Your task to perform on an android device: turn off translation in the chrome app Image 0: 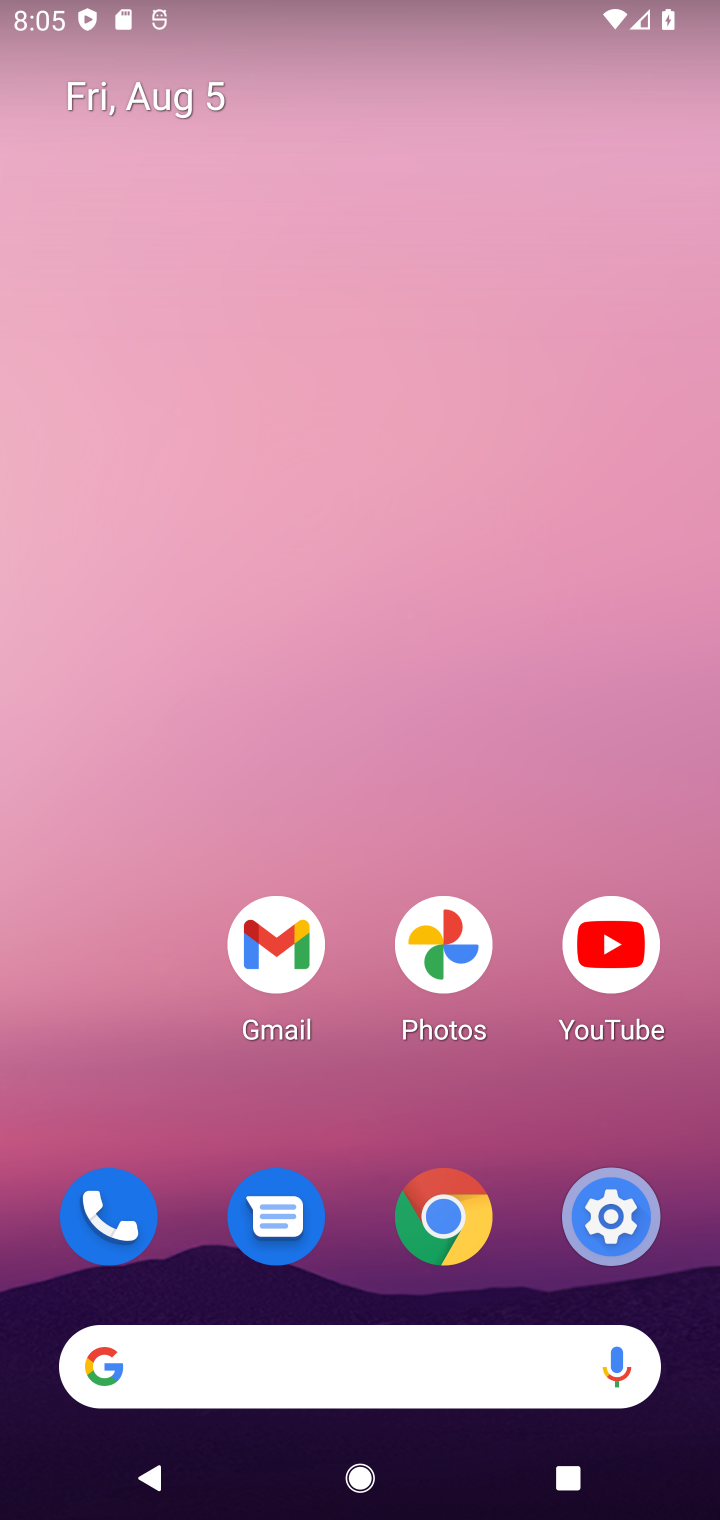
Step 0: drag from (342, 1307) to (515, 339)
Your task to perform on an android device: turn off translation in the chrome app Image 1: 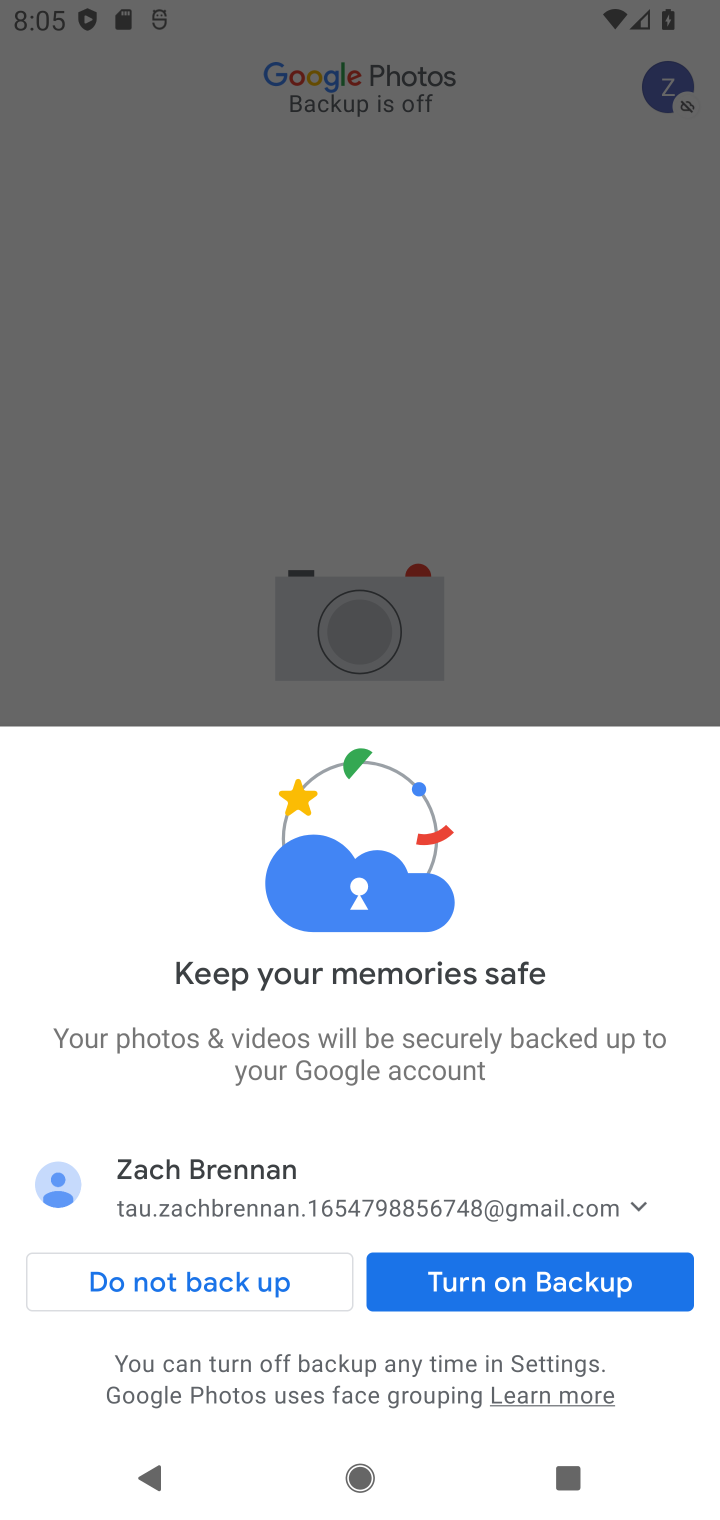
Step 1: press home button
Your task to perform on an android device: turn off translation in the chrome app Image 2: 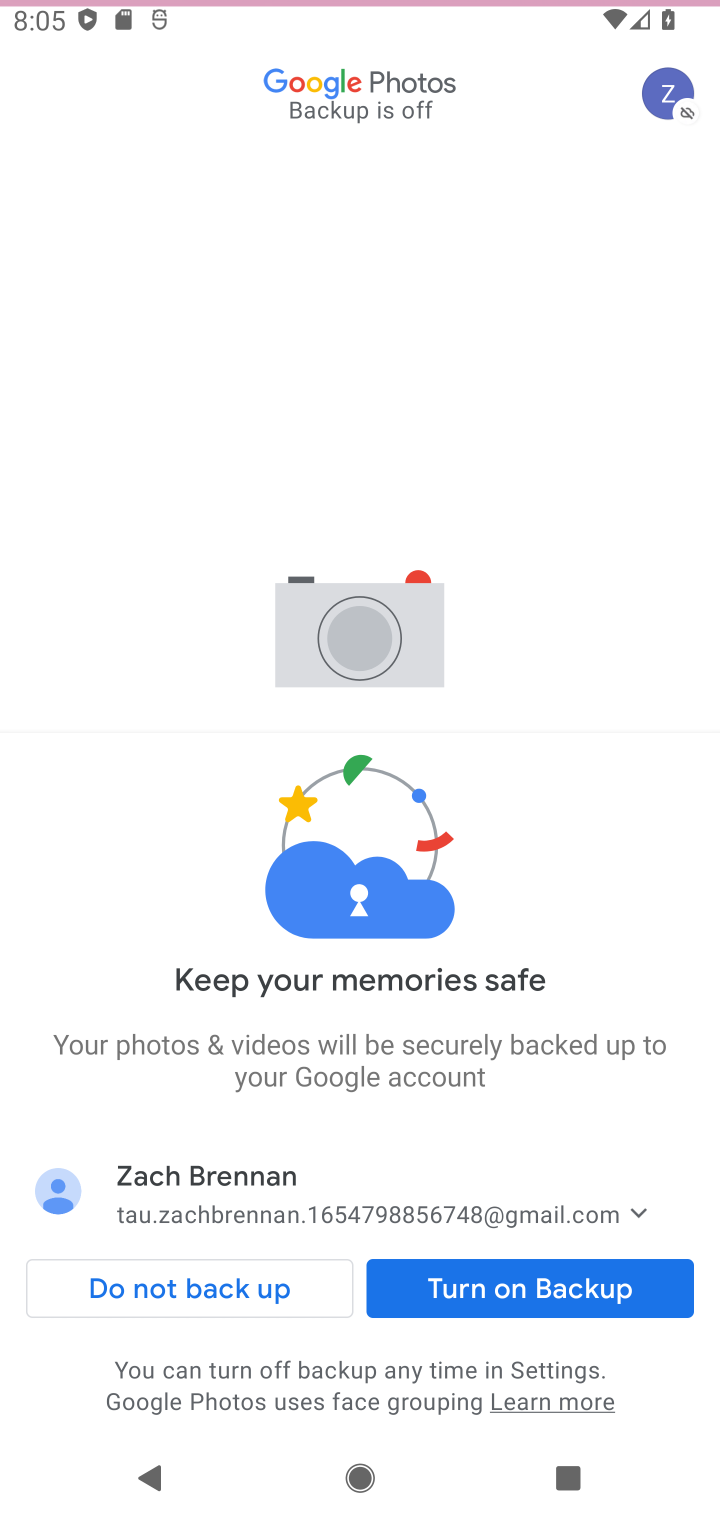
Step 2: drag from (357, 1149) to (430, 365)
Your task to perform on an android device: turn off translation in the chrome app Image 3: 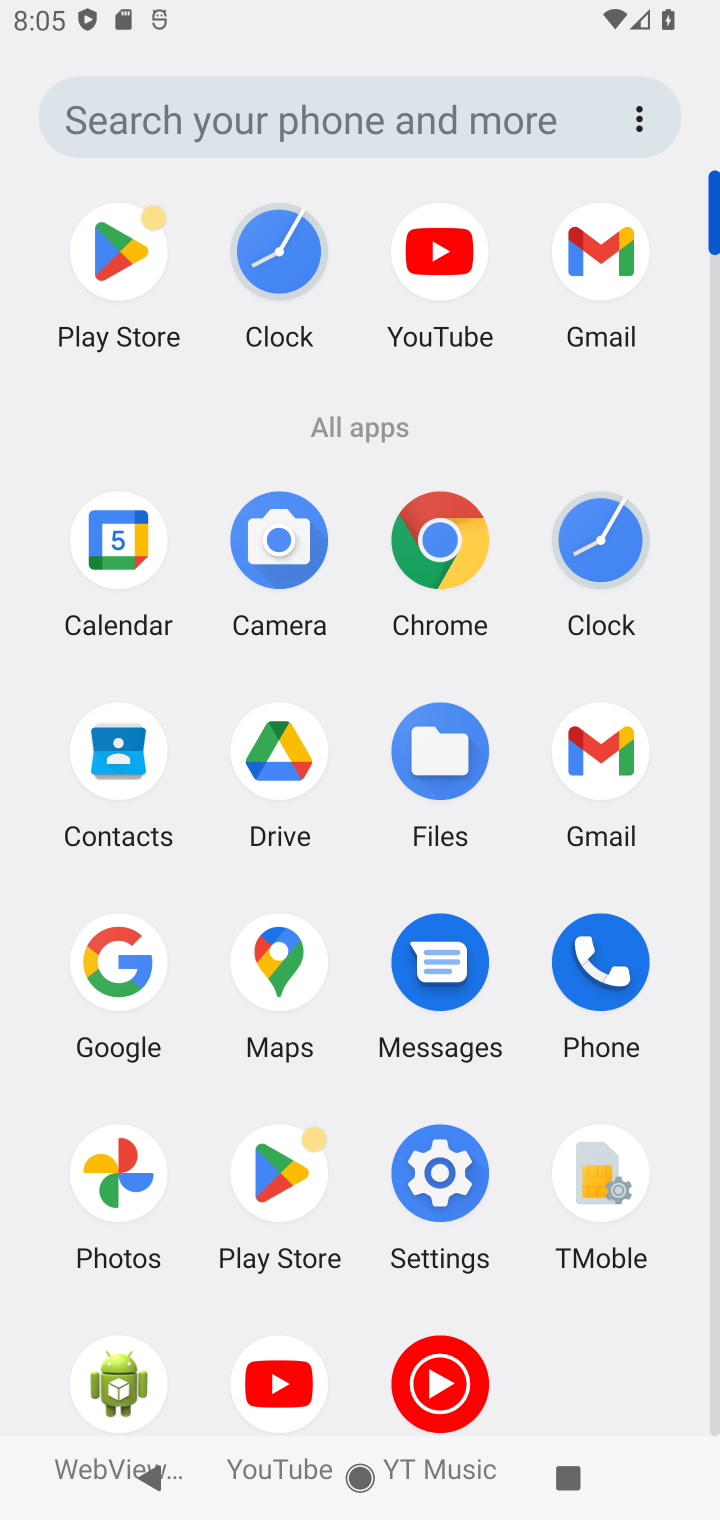
Step 3: click (433, 531)
Your task to perform on an android device: turn off translation in the chrome app Image 4: 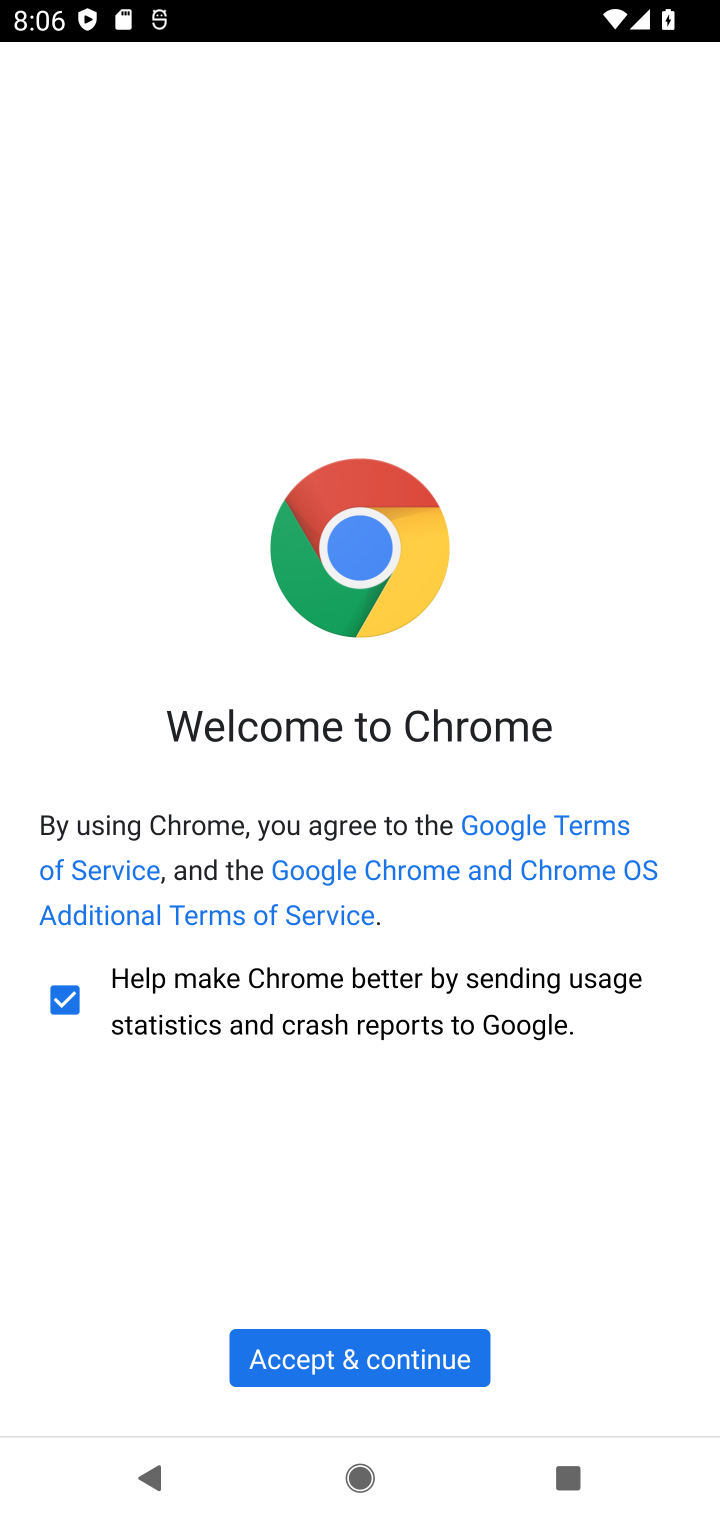
Step 4: click (338, 1353)
Your task to perform on an android device: turn off translation in the chrome app Image 5: 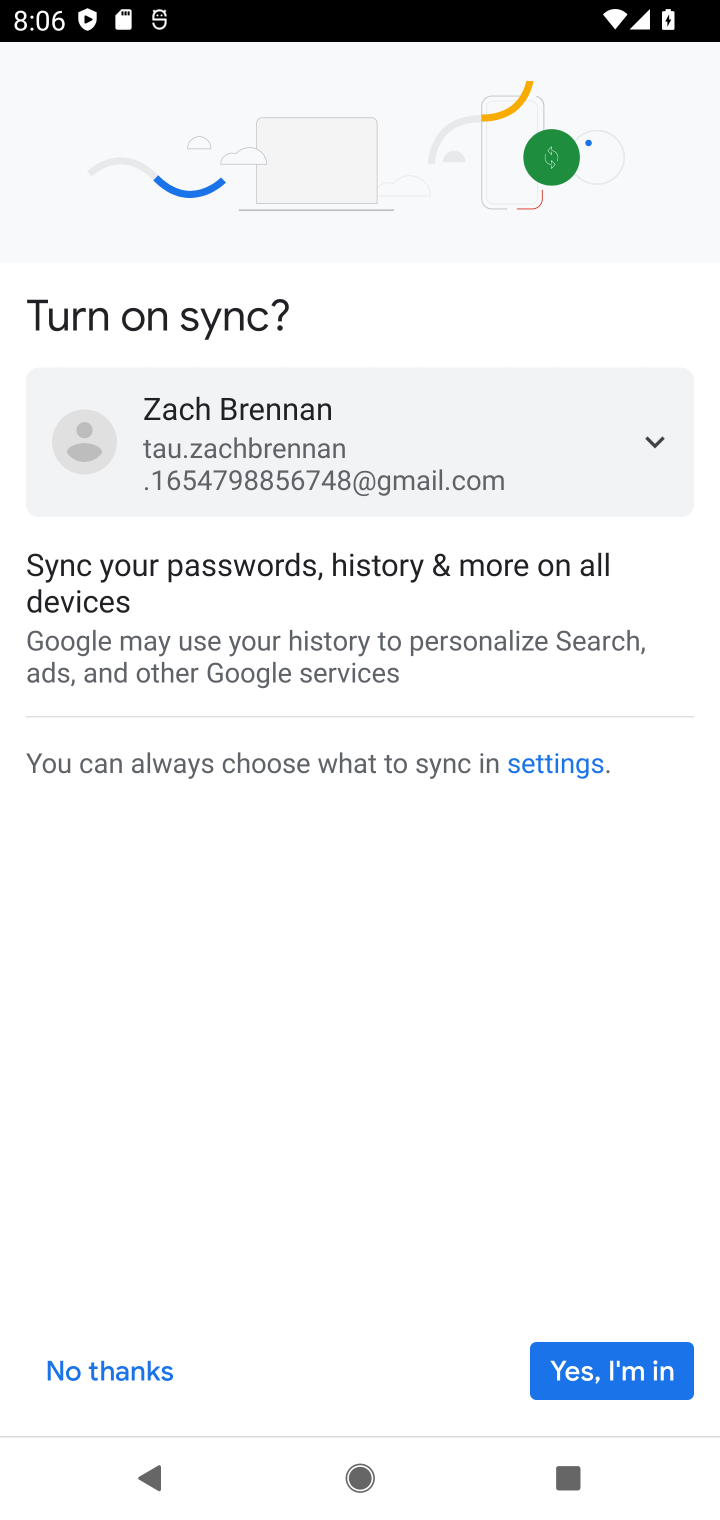
Step 5: click (592, 1366)
Your task to perform on an android device: turn off translation in the chrome app Image 6: 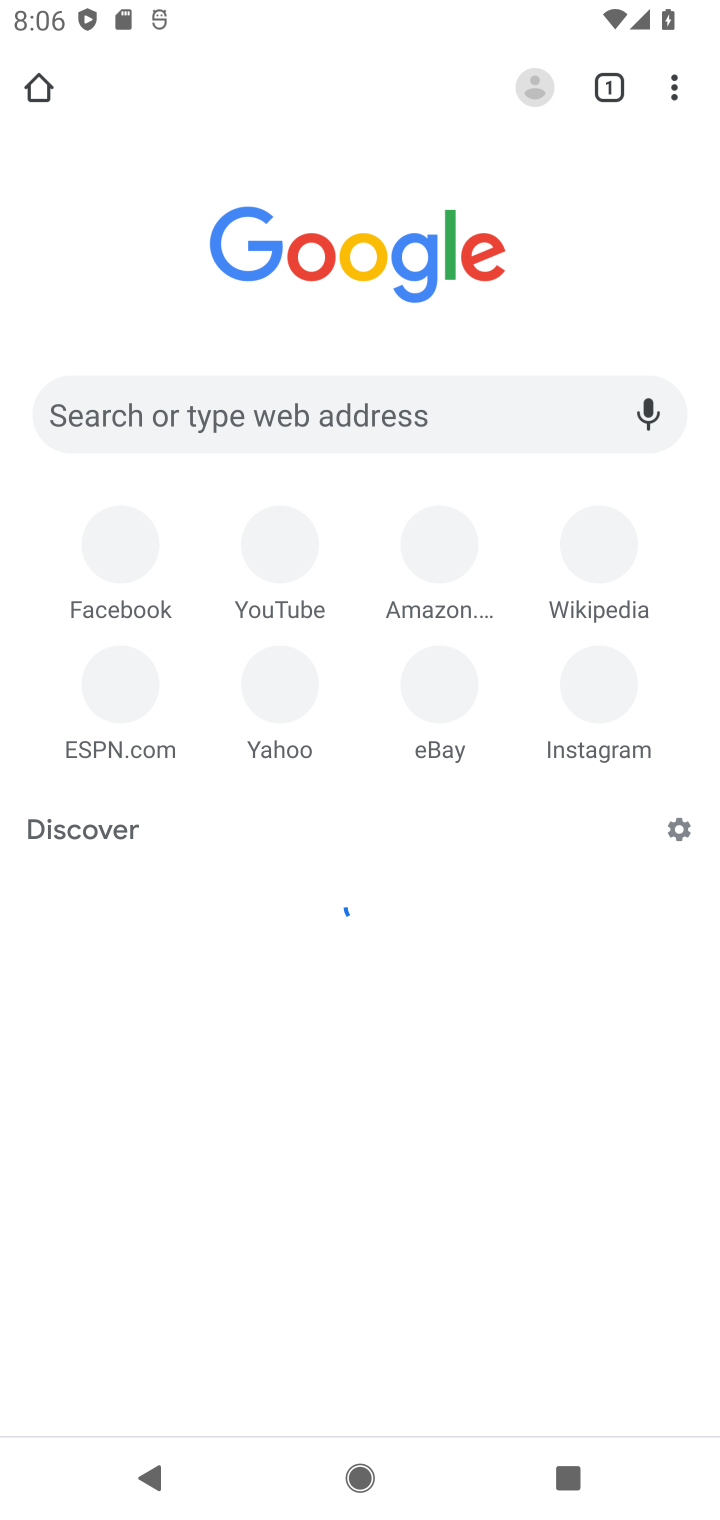
Step 6: click (606, 1371)
Your task to perform on an android device: turn off translation in the chrome app Image 7: 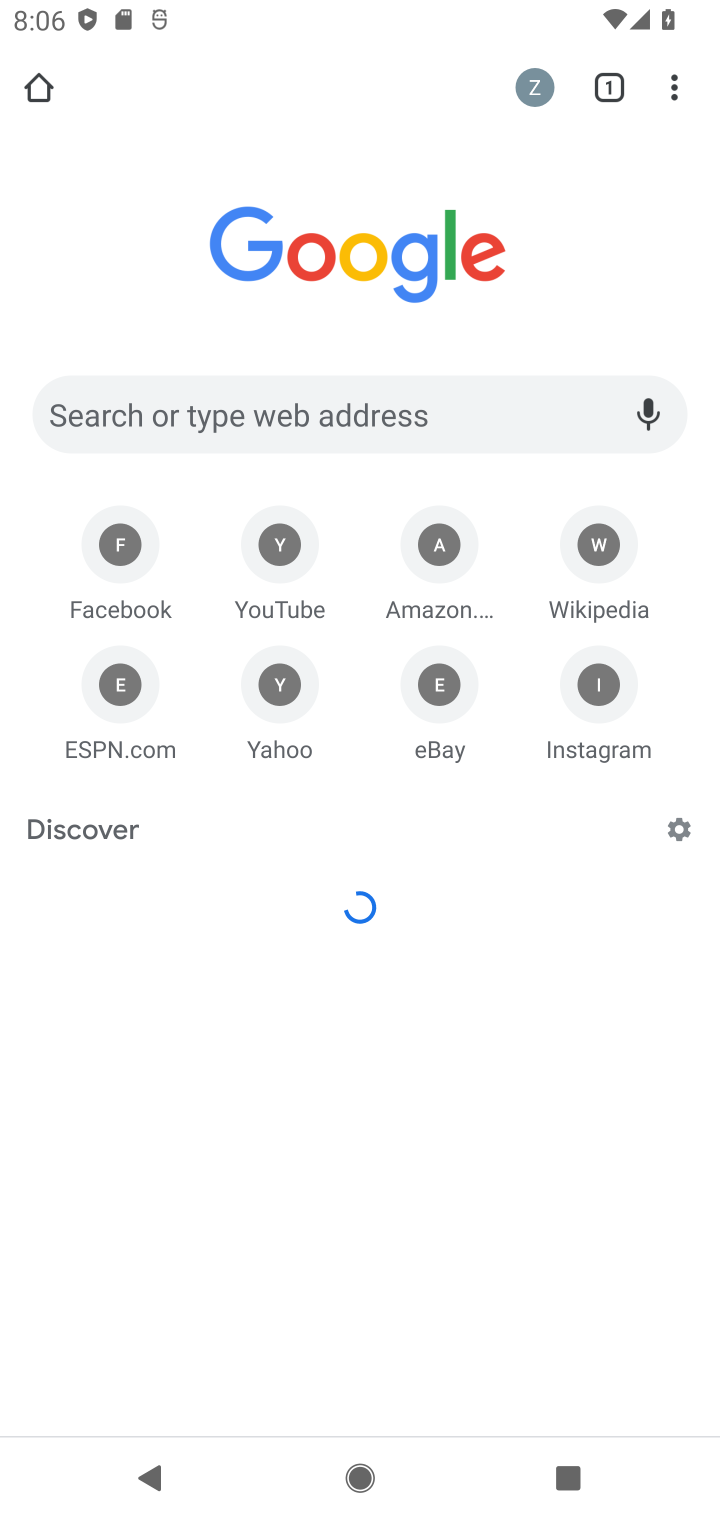
Step 7: click (679, 83)
Your task to perform on an android device: turn off translation in the chrome app Image 8: 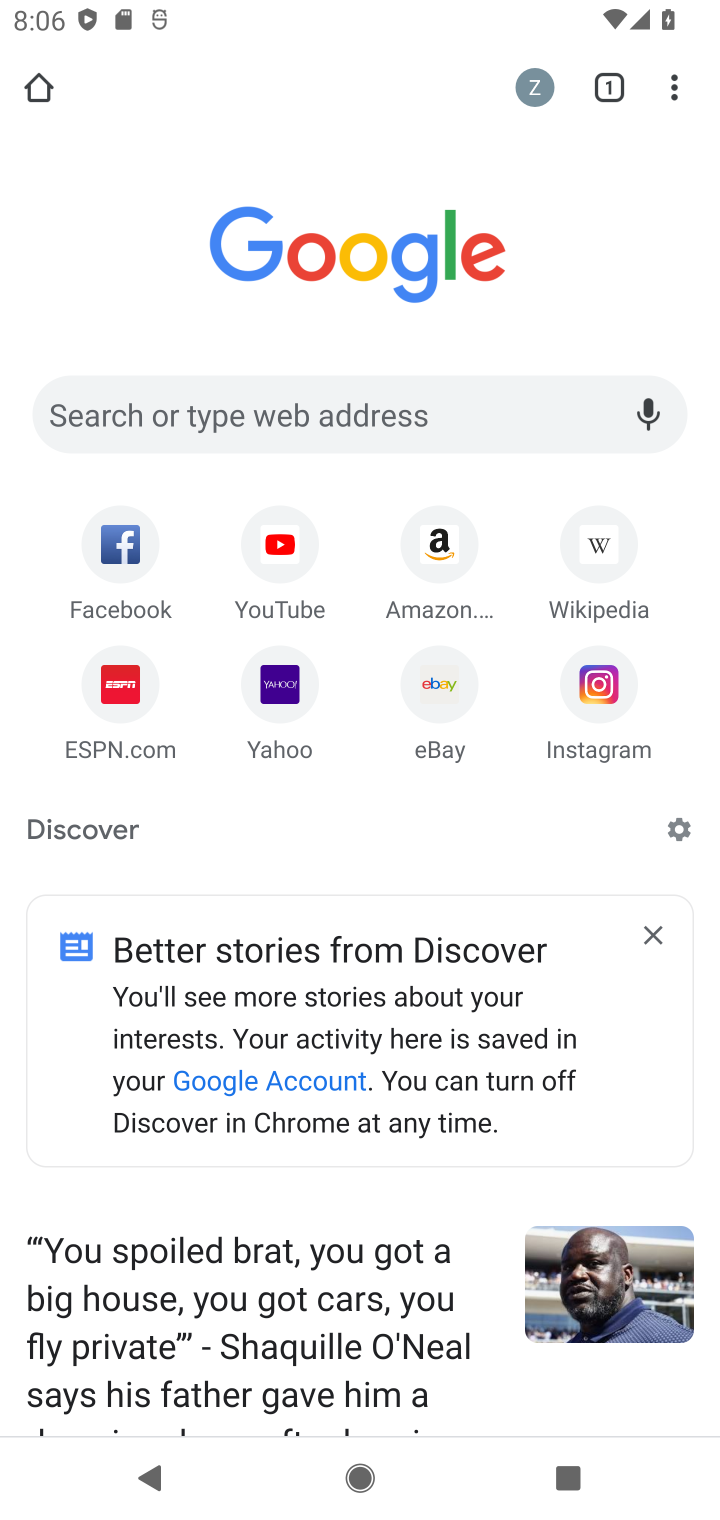
Step 8: drag from (675, 96) to (427, 767)
Your task to perform on an android device: turn off translation in the chrome app Image 9: 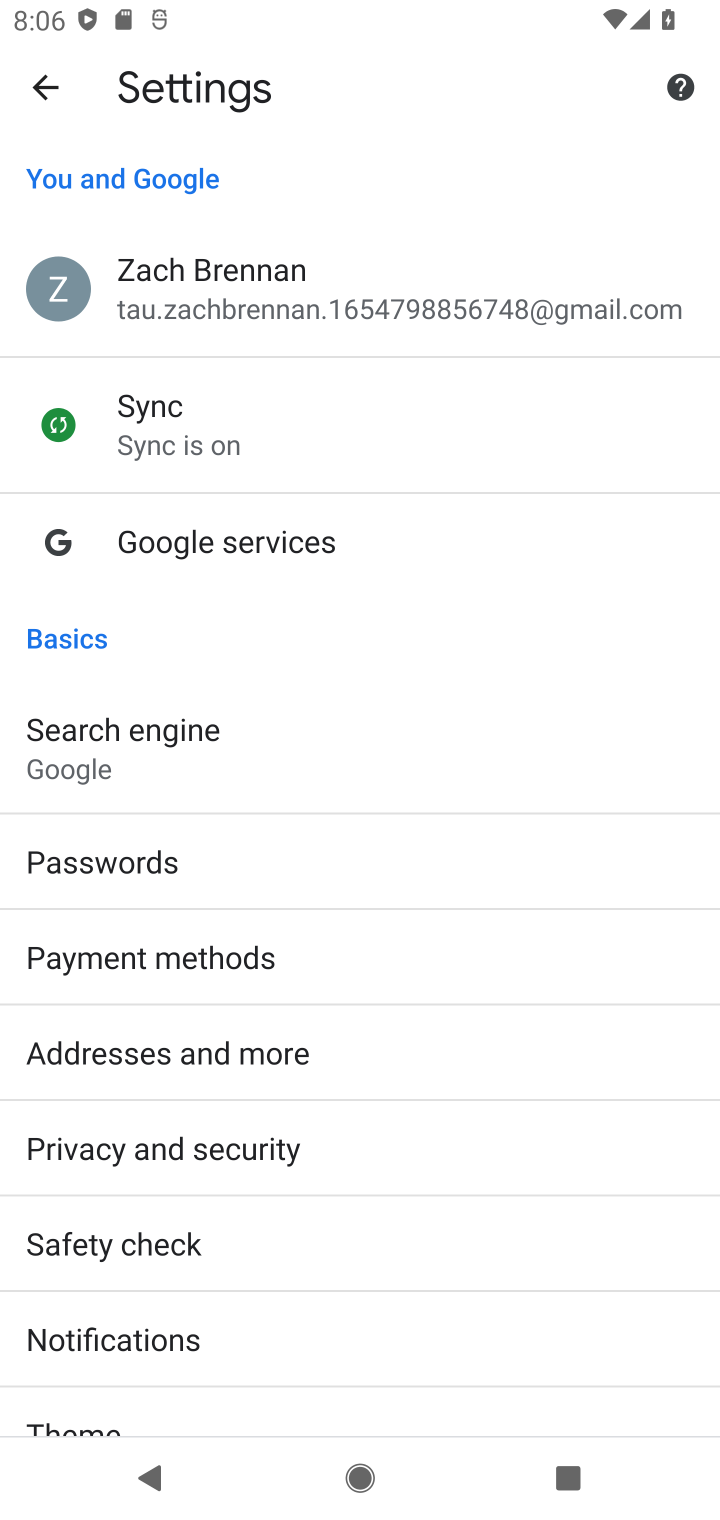
Step 9: drag from (175, 1295) to (322, 542)
Your task to perform on an android device: turn off translation in the chrome app Image 10: 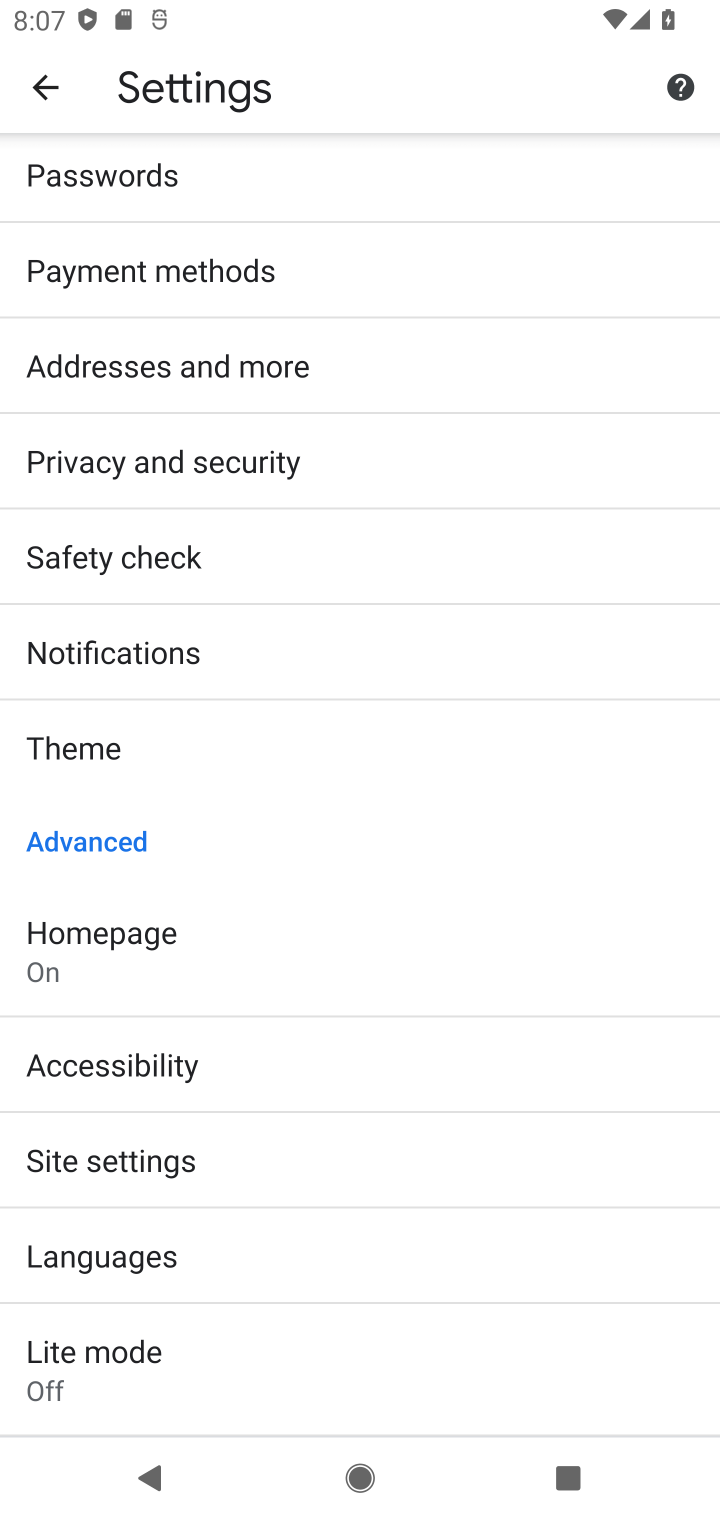
Step 10: drag from (285, 1262) to (467, 434)
Your task to perform on an android device: turn off translation in the chrome app Image 11: 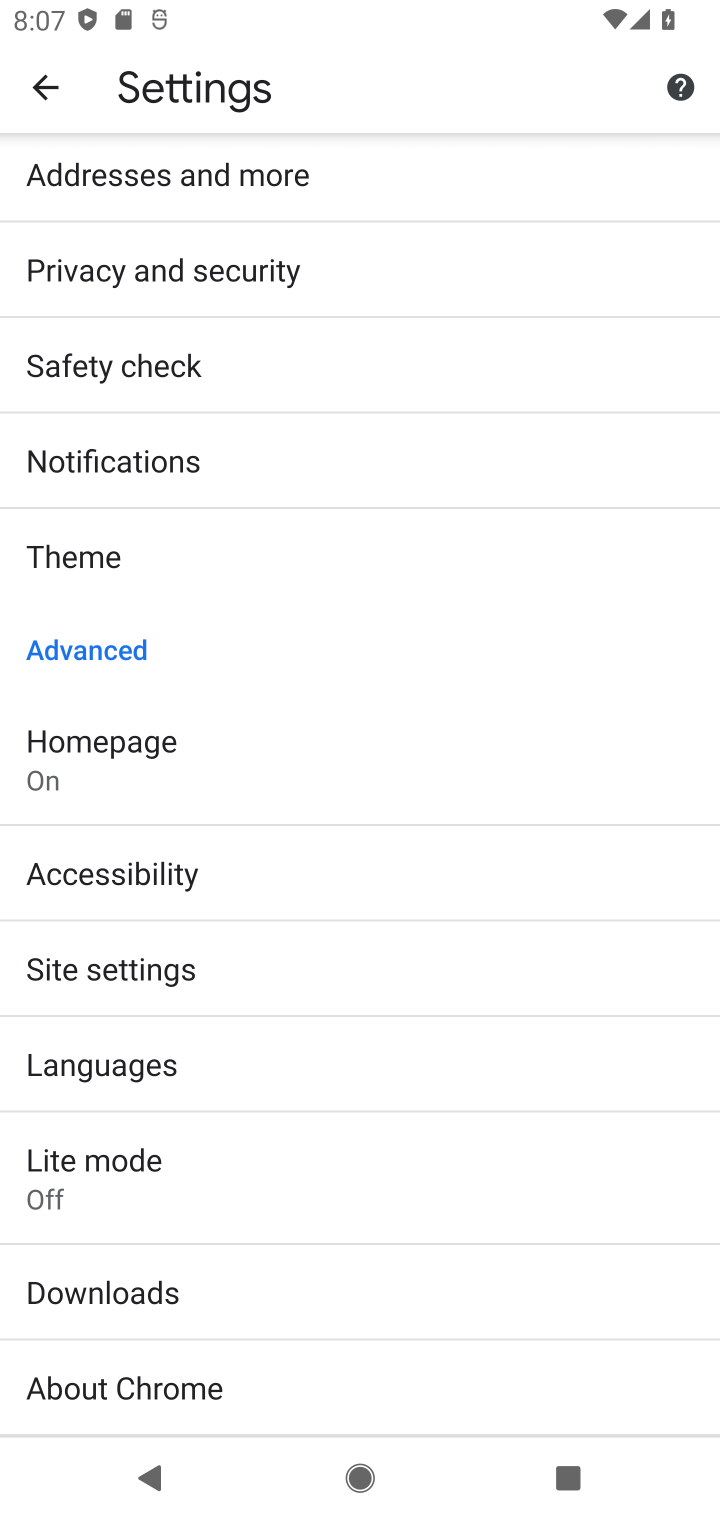
Step 11: click (171, 1081)
Your task to perform on an android device: turn off translation in the chrome app Image 12: 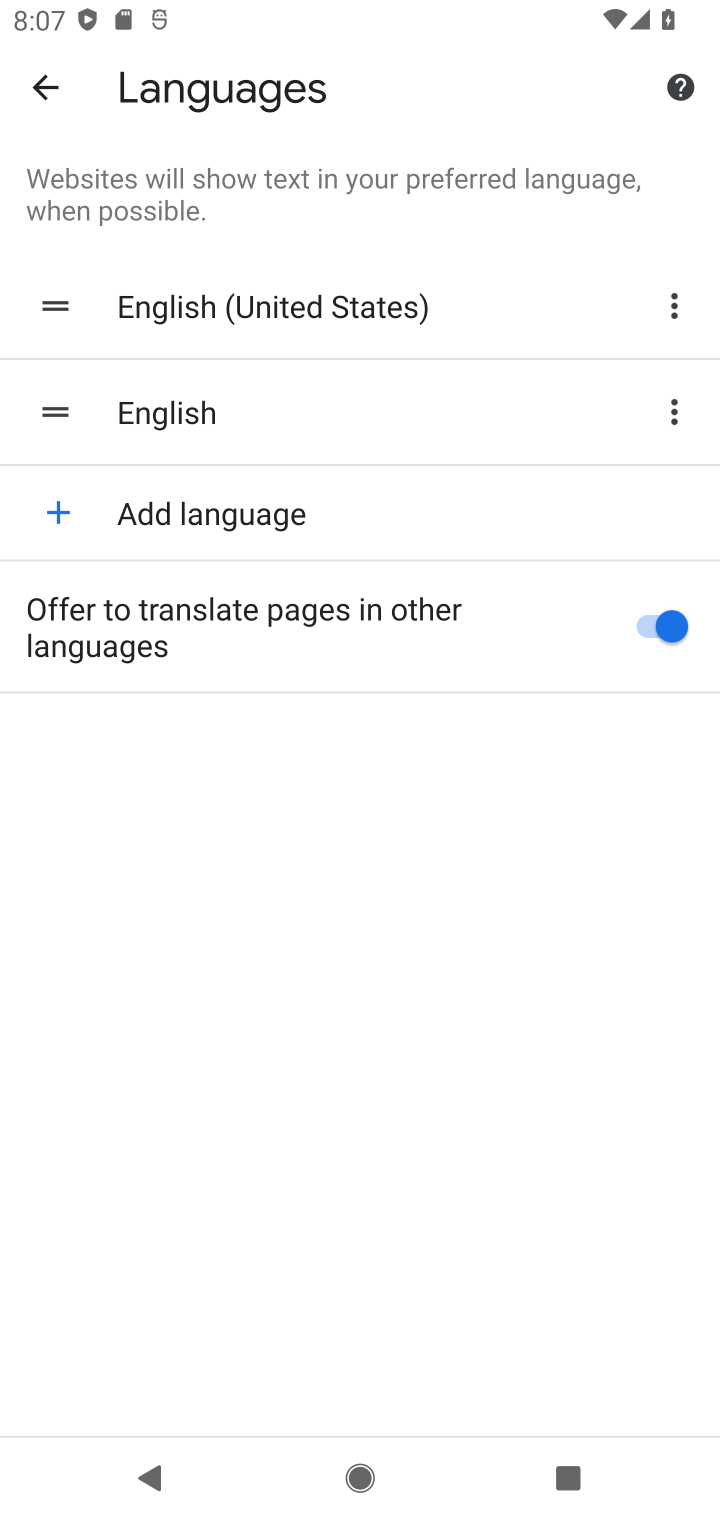
Step 12: click (671, 627)
Your task to perform on an android device: turn off translation in the chrome app Image 13: 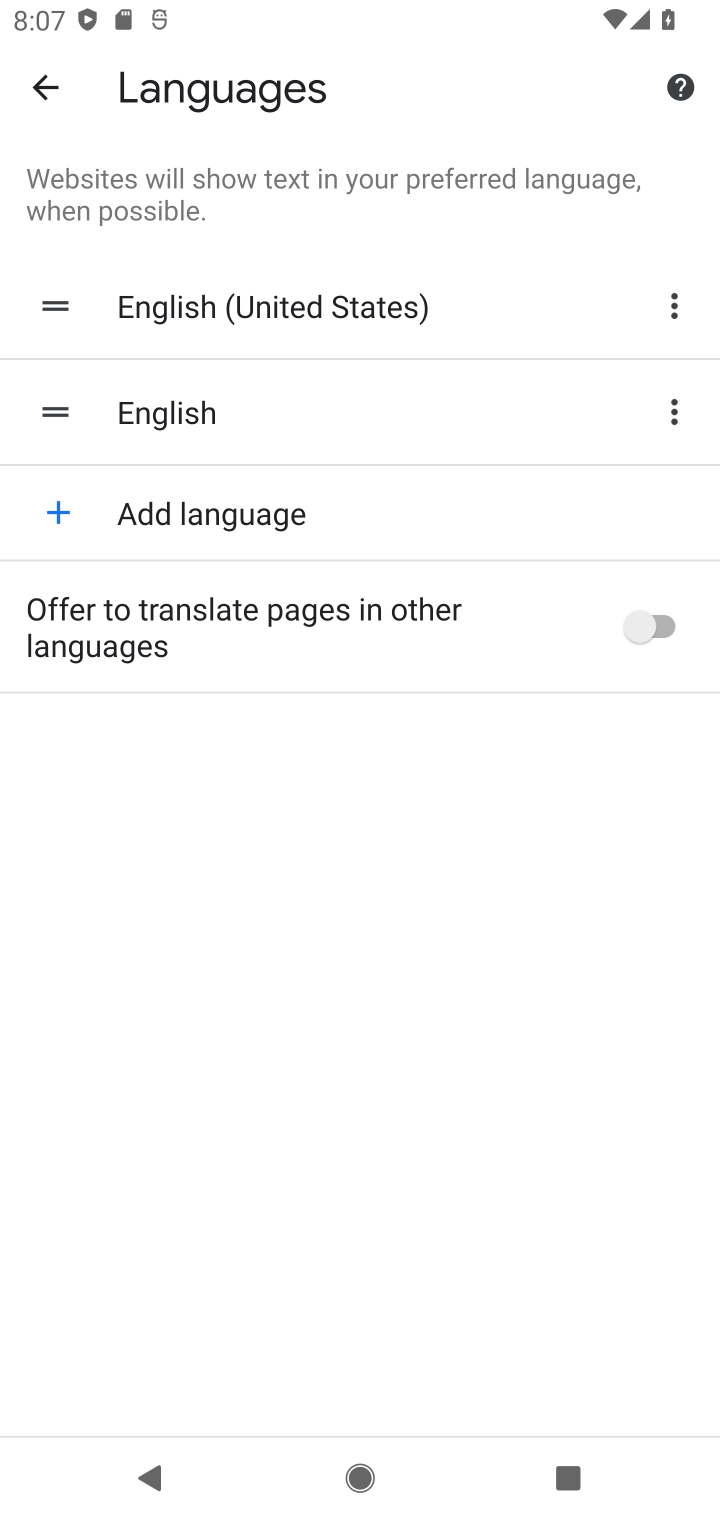
Step 13: task complete